Your task to perform on an android device: Open Chrome and go to the settings page Image 0: 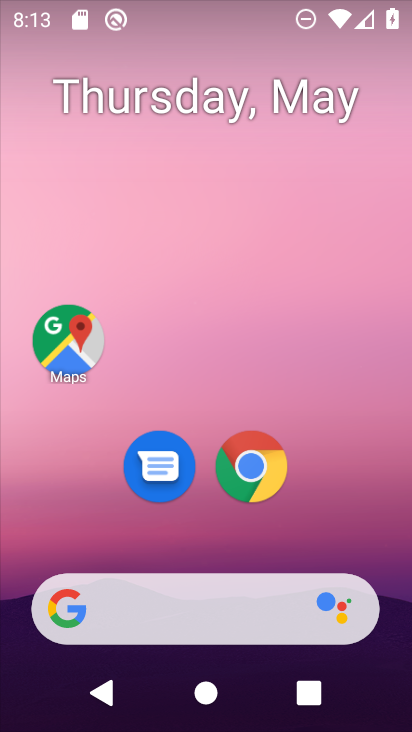
Step 0: click (266, 468)
Your task to perform on an android device: Open Chrome and go to the settings page Image 1: 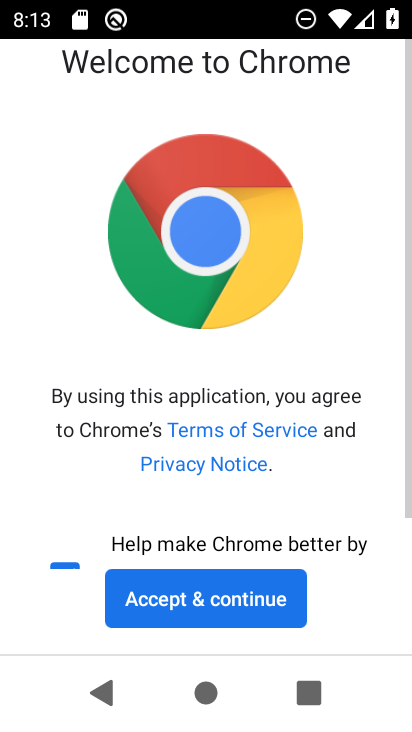
Step 1: click (196, 591)
Your task to perform on an android device: Open Chrome and go to the settings page Image 2: 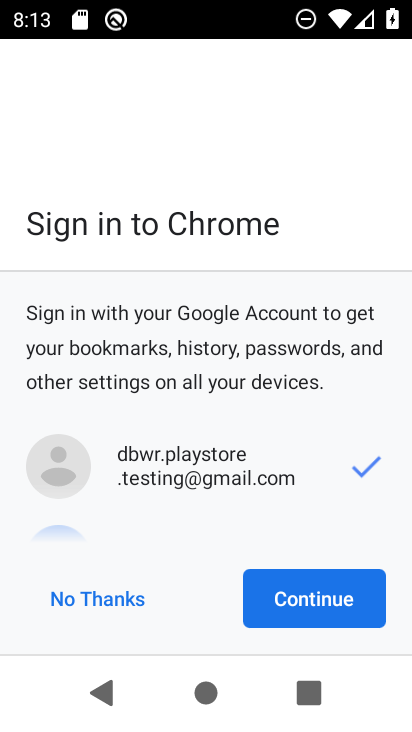
Step 2: click (300, 614)
Your task to perform on an android device: Open Chrome and go to the settings page Image 3: 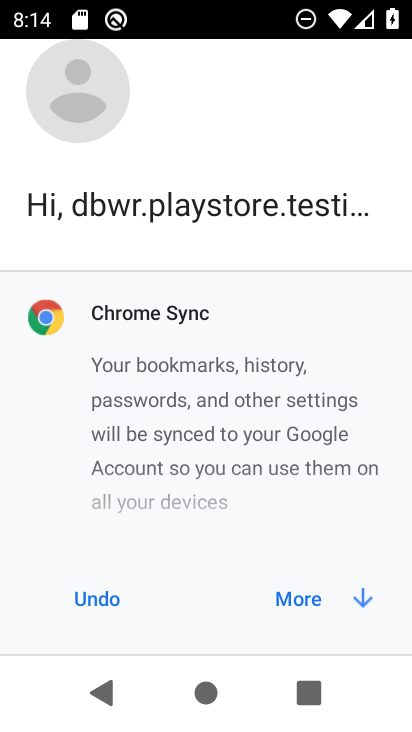
Step 3: click (358, 608)
Your task to perform on an android device: Open Chrome and go to the settings page Image 4: 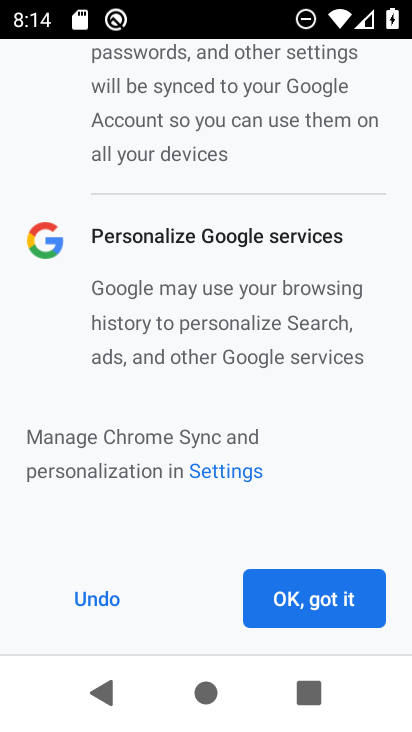
Step 4: click (339, 594)
Your task to perform on an android device: Open Chrome and go to the settings page Image 5: 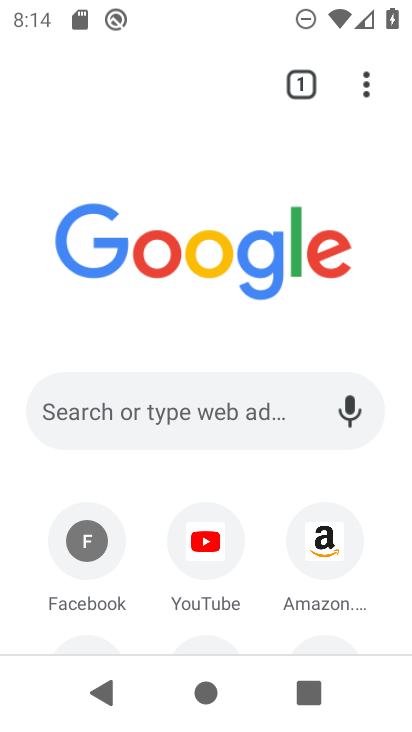
Step 5: click (361, 87)
Your task to perform on an android device: Open Chrome and go to the settings page Image 6: 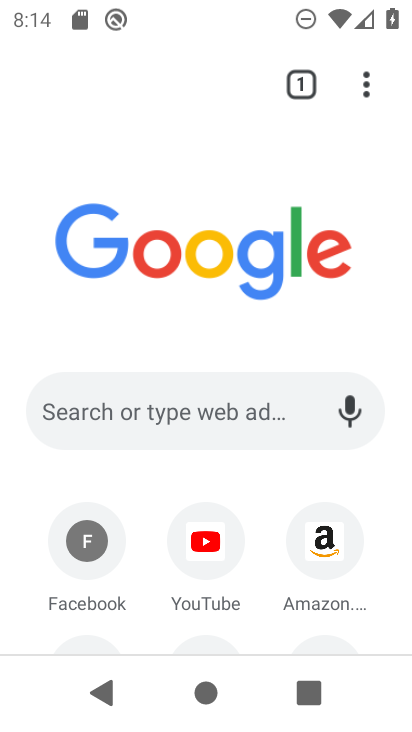
Step 6: task complete